Your task to perform on an android device: Go to settings Image 0: 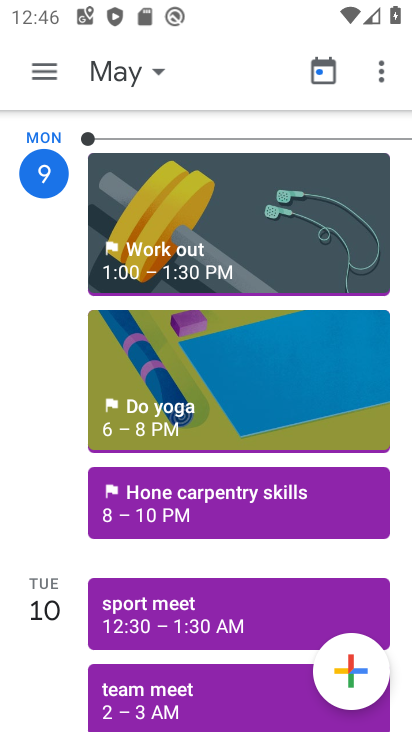
Step 0: press home button
Your task to perform on an android device: Go to settings Image 1: 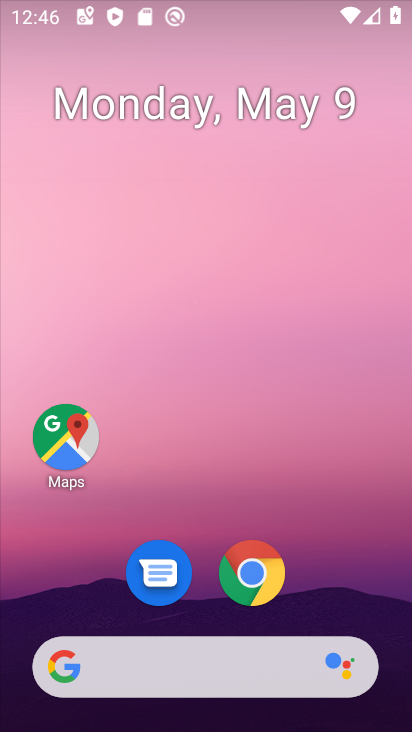
Step 1: drag from (279, 507) to (120, 74)
Your task to perform on an android device: Go to settings Image 2: 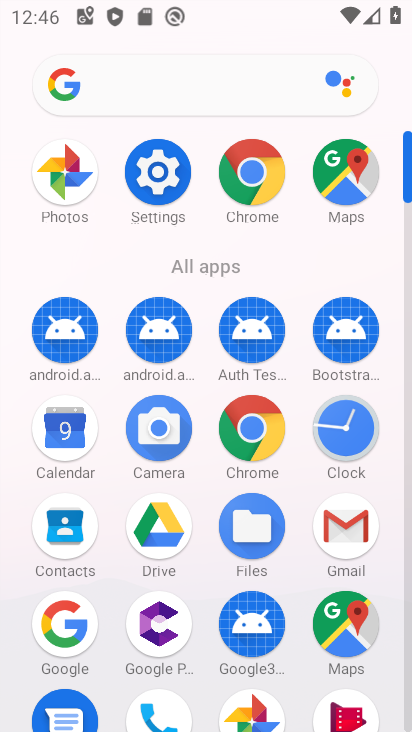
Step 2: drag from (198, 619) to (218, 332)
Your task to perform on an android device: Go to settings Image 3: 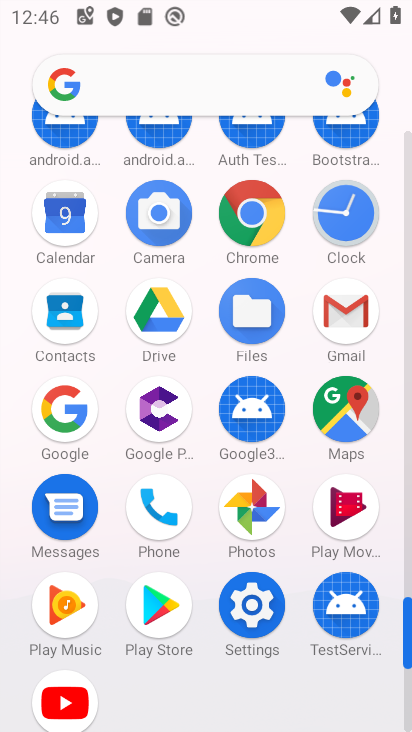
Step 3: click (273, 620)
Your task to perform on an android device: Go to settings Image 4: 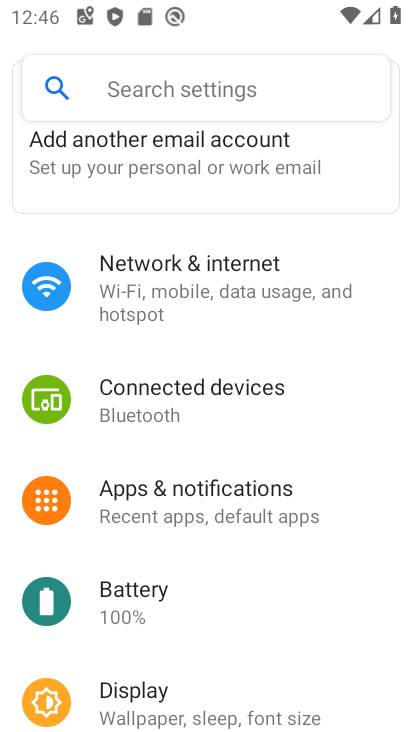
Step 4: task complete